Your task to perform on an android device: Open maps Image 0: 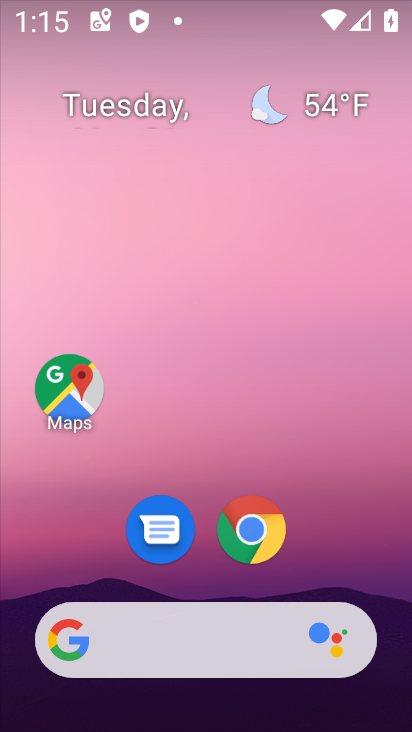
Step 0: click (70, 392)
Your task to perform on an android device: Open maps Image 1: 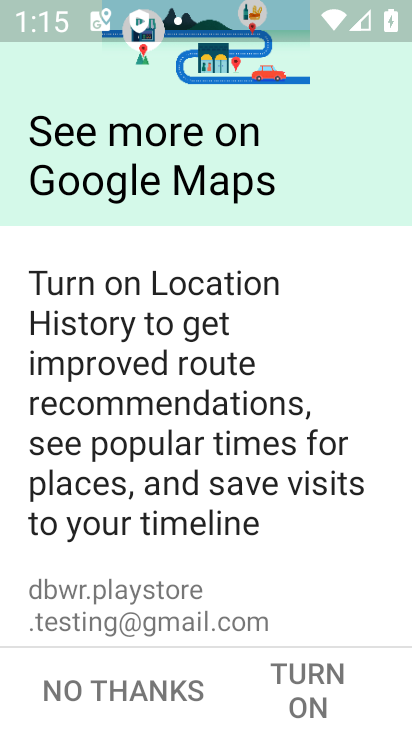
Step 1: task complete